Your task to perform on an android device: Search for vegetarian restaurants on Maps Image 0: 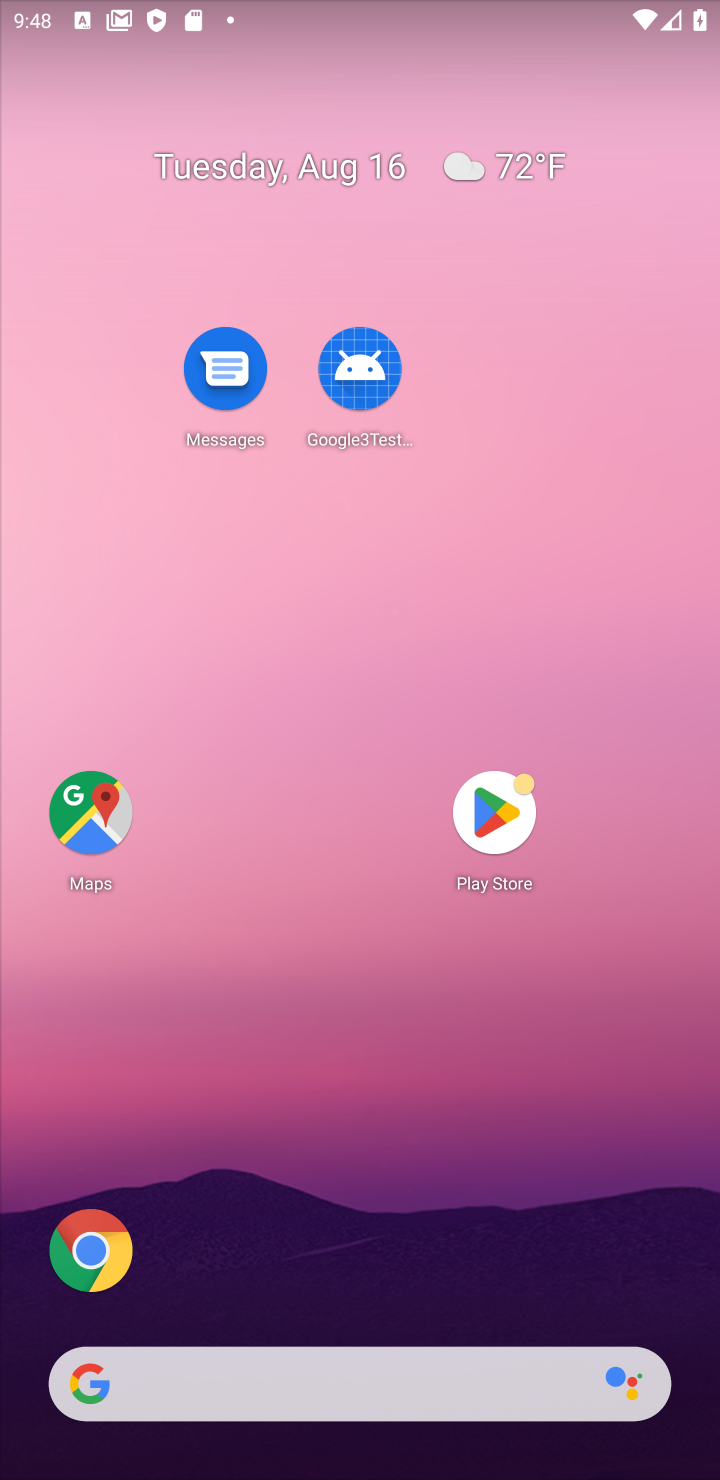
Step 0: click (107, 807)
Your task to perform on an android device: Search for vegetarian restaurants on Maps Image 1: 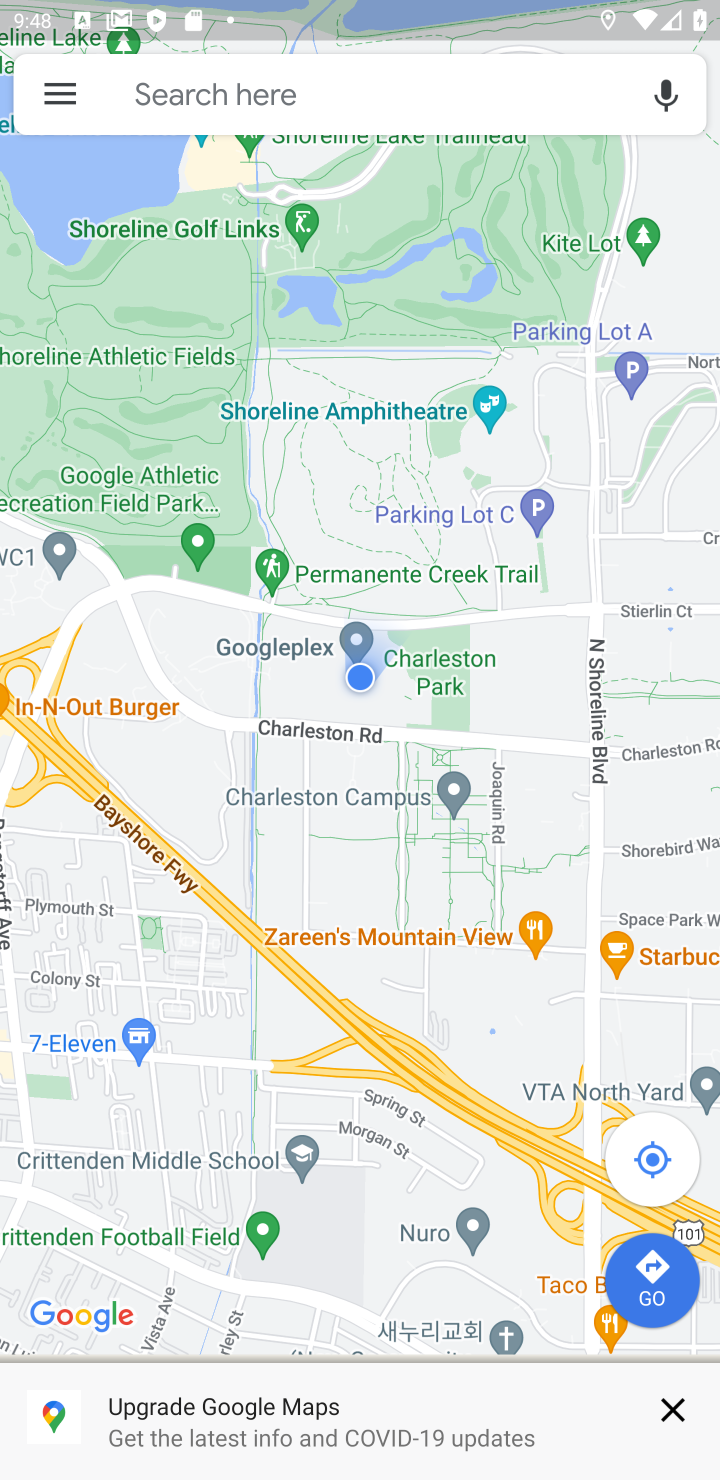
Step 1: click (184, 86)
Your task to perform on an android device: Search for vegetarian restaurants on Maps Image 2: 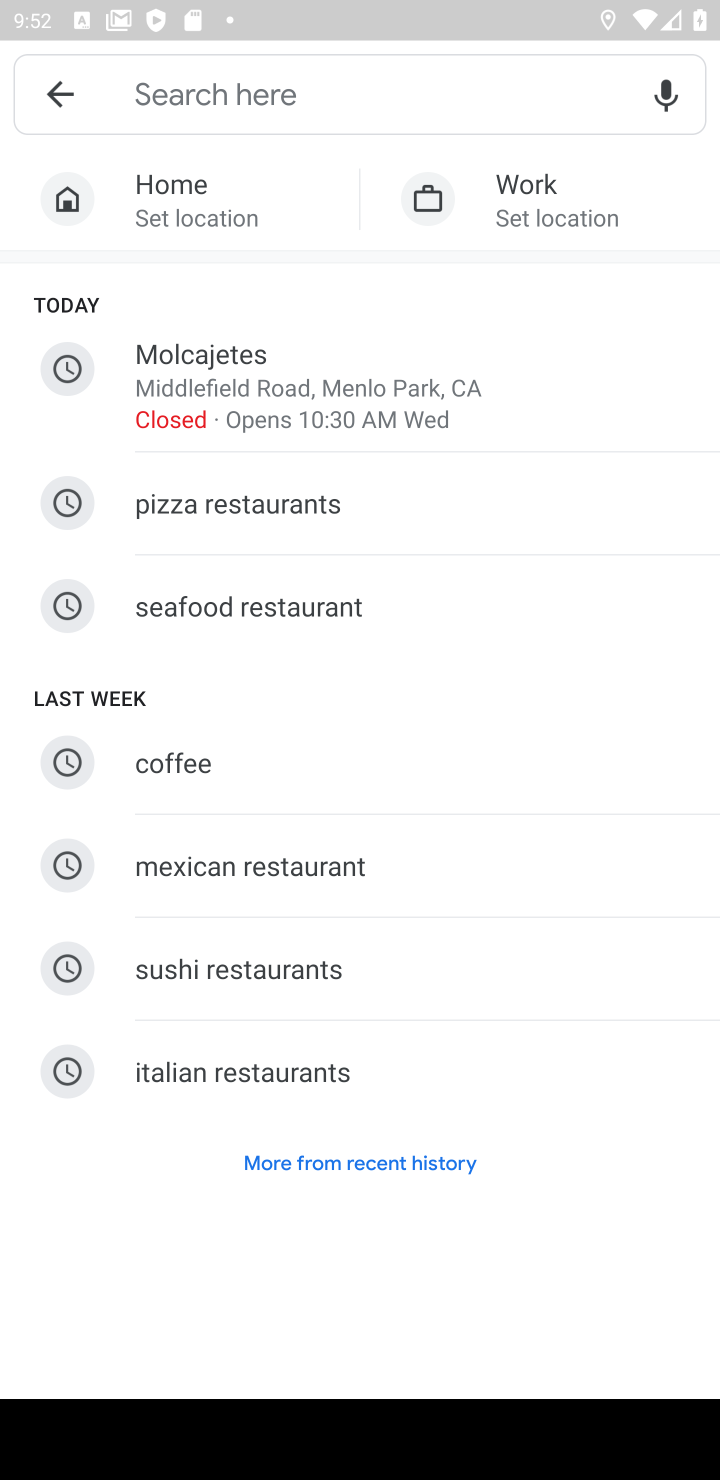
Step 2: type "vegetarian restaurant"
Your task to perform on an android device: Search for vegetarian restaurants on Maps Image 3: 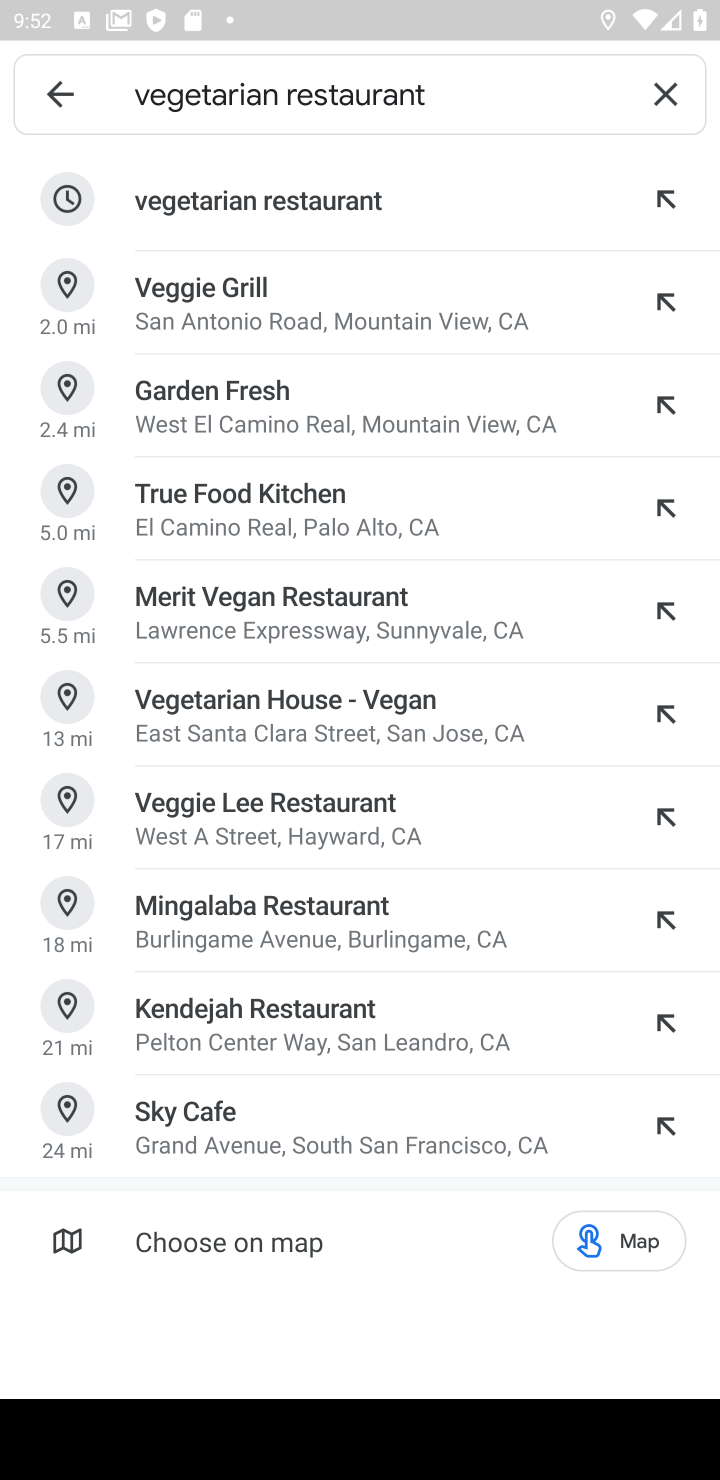
Step 3: click (257, 228)
Your task to perform on an android device: Search for vegetarian restaurants on Maps Image 4: 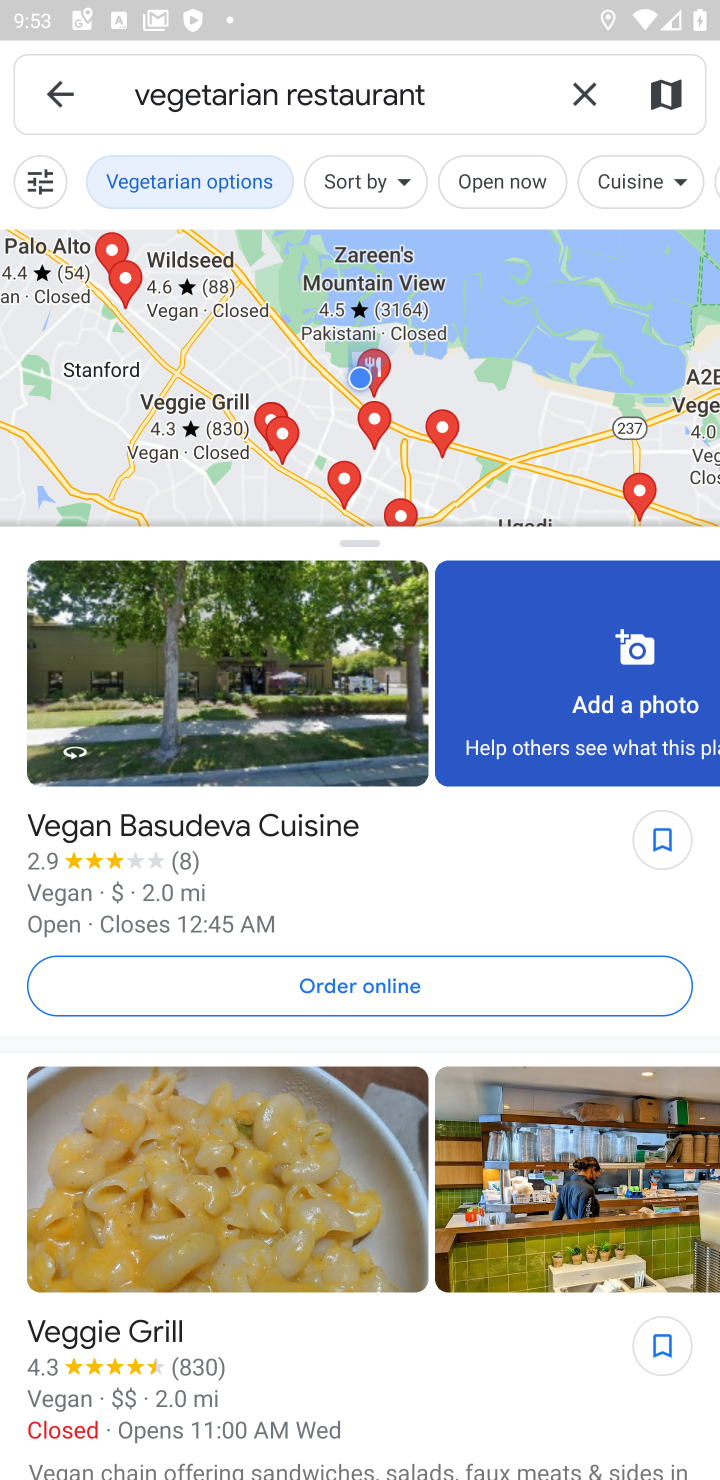
Step 4: task complete